Your task to perform on an android device: see sites visited before in the chrome app Image 0: 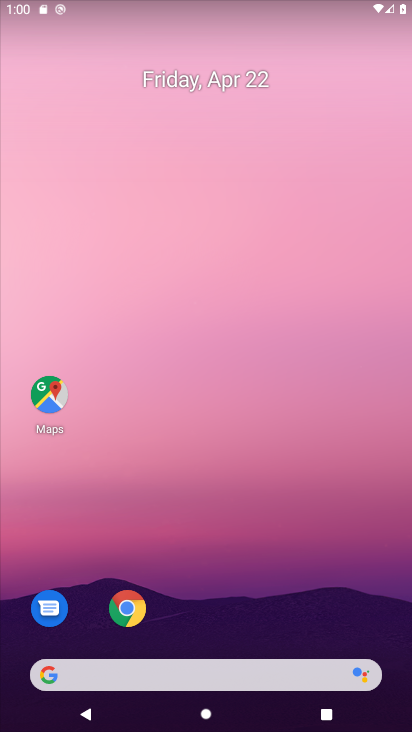
Step 0: click (129, 612)
Your task to perform on an android device: see sites visited before in the chrome app Image 1: 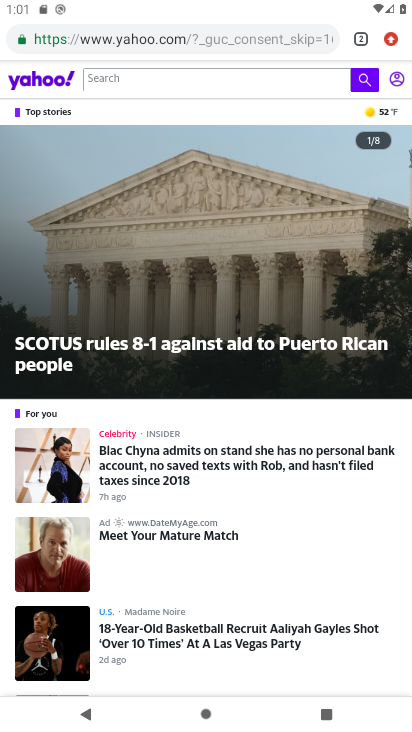
Step 1: task complete